Your task to perform on an android device: turn on priority inbox in the gmail app Image 0: 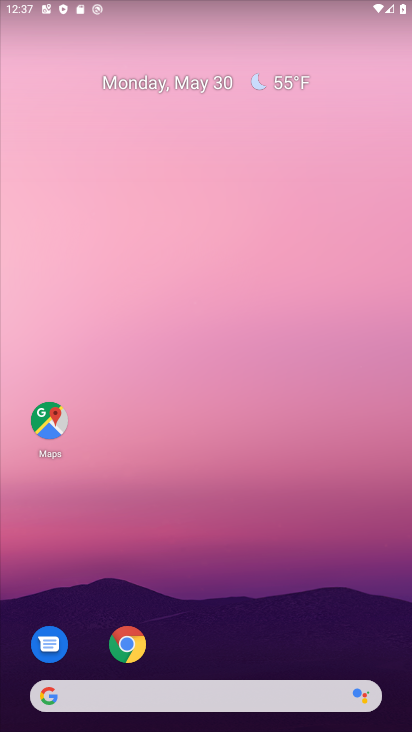
Step 0: drag from (332, 629) to (293, 185)
Your task to perform on an android device: turn on priority inbox in the gmail app Image 1: 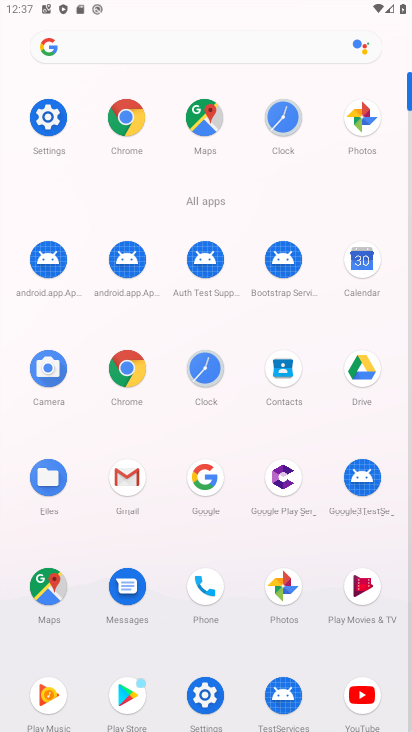
Step 1: click (130, 495)
Your task to perform on an android device: turn on priority inbox in the gmail app Image 2: 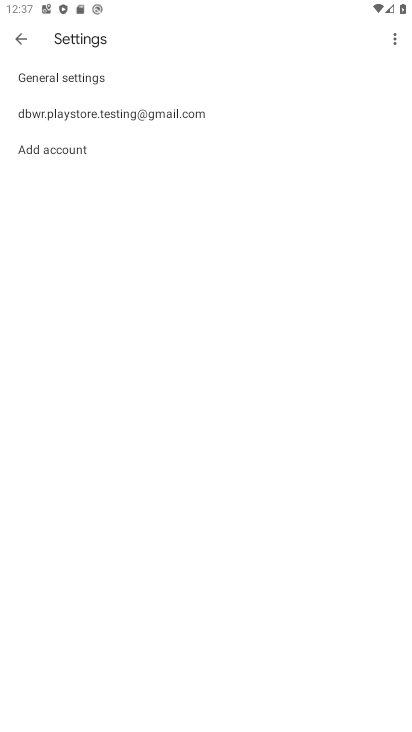
Step 2: click (23, 40)
Your task to perform on an android device: turn on priority inbox in the gmail app Image 3: 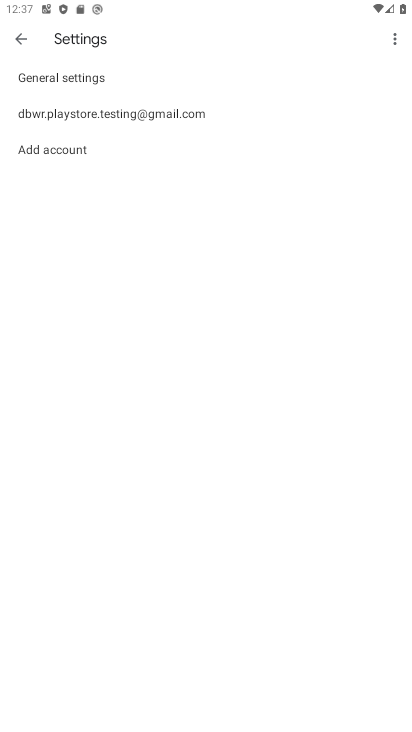
Step 3: click (23, 40)
Your task to perform on an android device: turn on priority inbox in the gmail app Image 4: 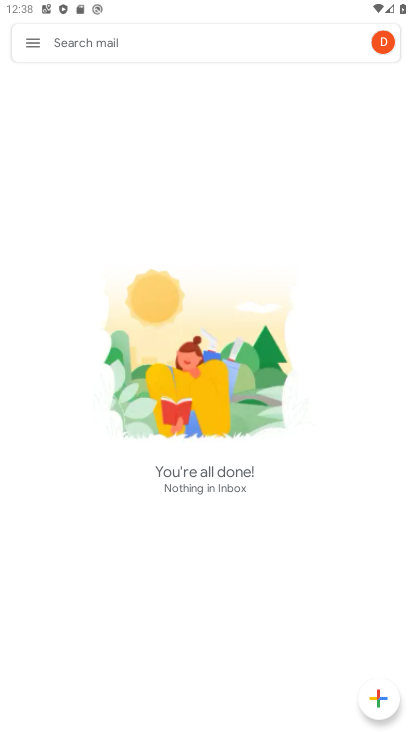
Step 4: task complete